Your task to perform on an android device: When is my next appointment? Image 0: 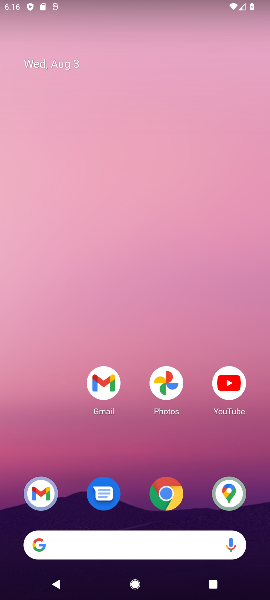
Step 0: drag from (134, 491) to (140, 42)
Your task to perform on an android device: When is my next appointment? Image 1: 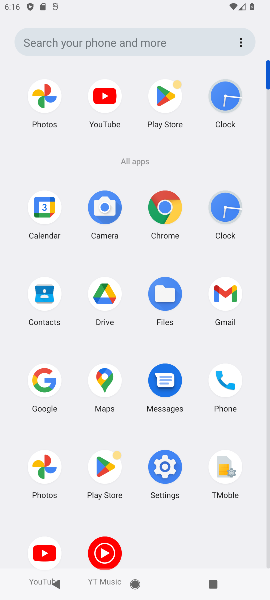
Step 1: click (43, 209)
Your task to perform on an android device: When is my next appointment? Image 2: 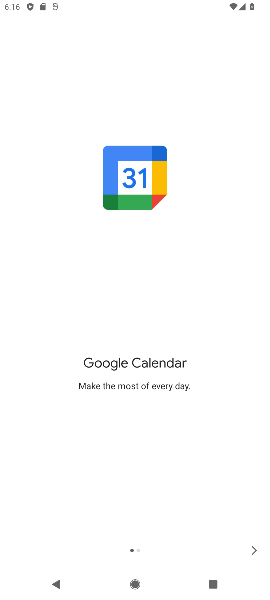
Step 2: click (249, 550)
Your task to perform on an android device: When is my next appointment? Image 3: 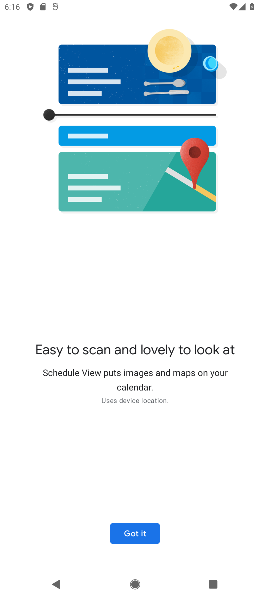
Step 3: click (141, 538)
Your task to perform on an android device: When is my next appointment? Image 4: 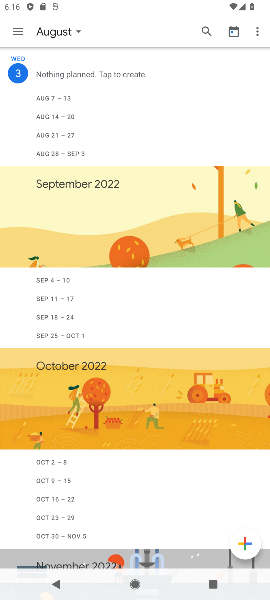
Step 4: click (69, 28)
Your task to perform on an android device: When is my next appointment? Image 5: 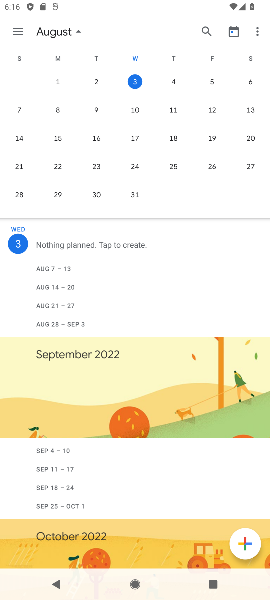
Step 5: click (173, 79)
Your task to perform on an android device: When is my next appointment? Image 6: 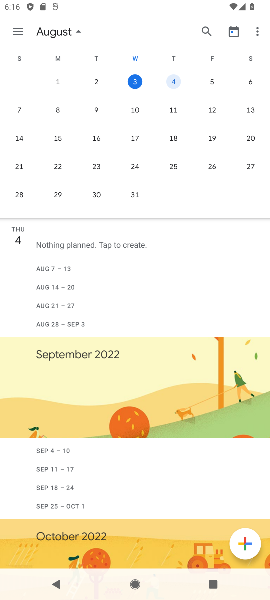
Step 6: click (175, 77)
Your task to perform on an android device: When is my next appointment? Image 7: 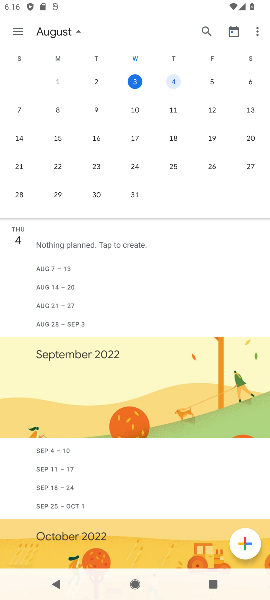
Step 7: click (170, 80)
Your task to perform on an android device: When is my next appointment? Image 8: 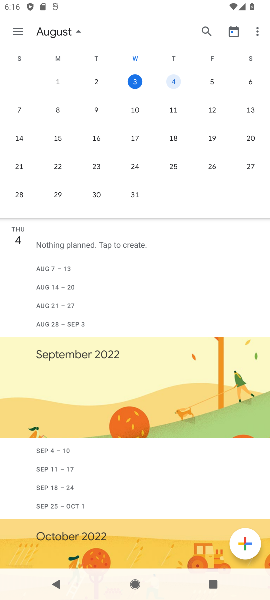
Step 8: click (170, 82)
Your task to perform on an android device: When is my next appointment? Image 9: 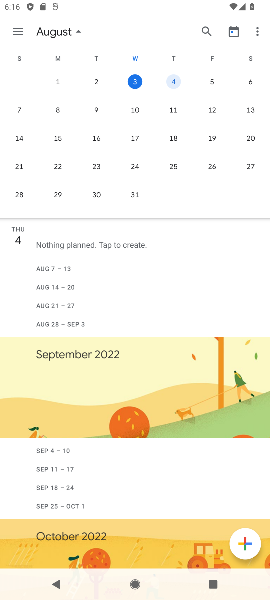
Step 9: click (170, 85)
Your task to perform on an android device: When is my next appointment? Image 10: 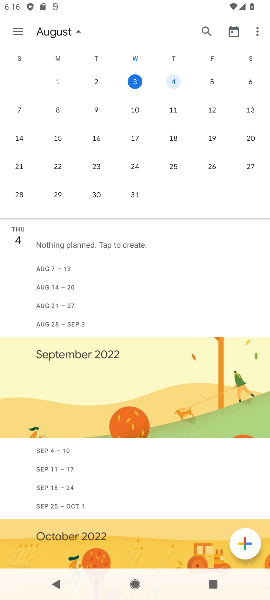
Step 10: click (170, 80)
Your task to perform on an android device: When is my next appointment? Image 11: 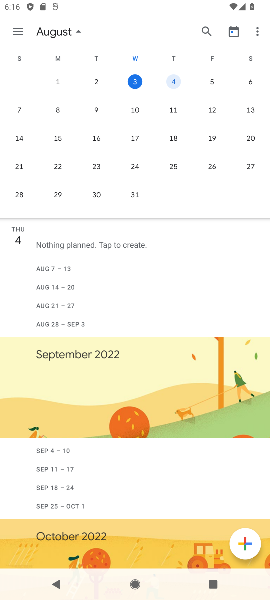
Step 11: click (166, 80)
Your task to perform on an android device: When is my next appointment? Image 12: 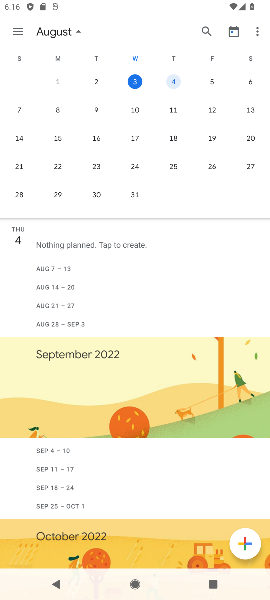
Step 12: click (178, 82)
Your task to perform on an android device: When is my next appointment? Image 13: 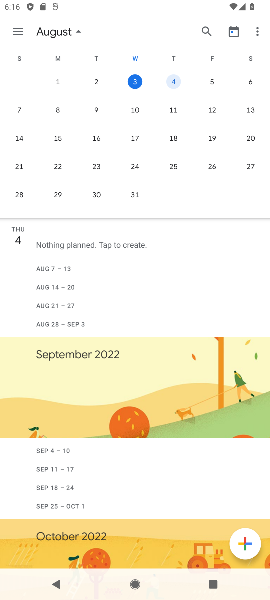
Step 13: click (178, 82)
Your task to perform on an android device: When is my next appointment? Image 14: 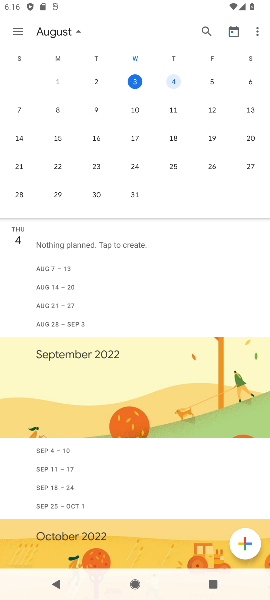
Step 14: click (178, 82)
Your task to perform on an android device: When is my next appointment? Image 15: 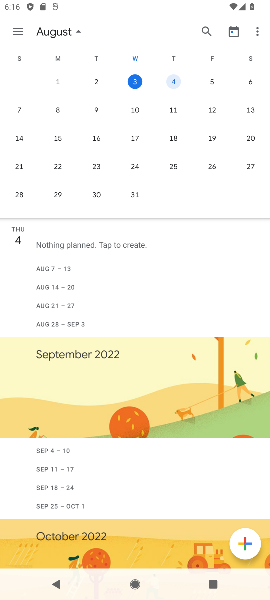
Step 15: click (178, 82)
Your task to perform on an android device: When is my next appointment? Image 16: 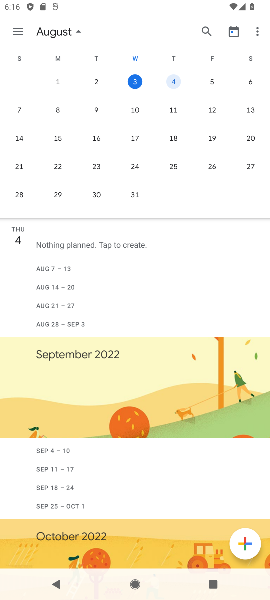
Step 16: click (170, 76)
Your task to perform on an android device: When is my next appointment? Image 17: 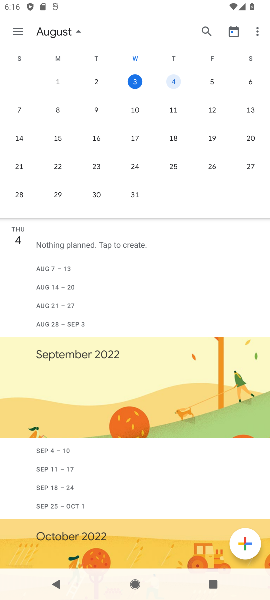
Step 17: click (170, 76)
Your task to perform on an android device: When is my next appointment? Image 18: 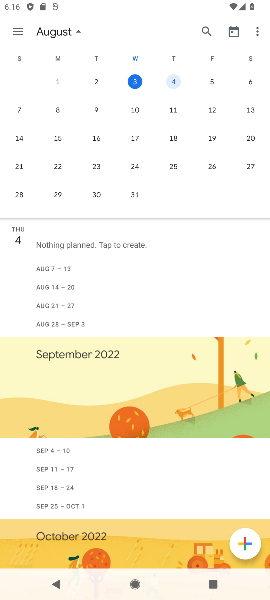
Step 18: click (173, 82)
Your task to perform on an android device: When is my next appointment? Image 19: 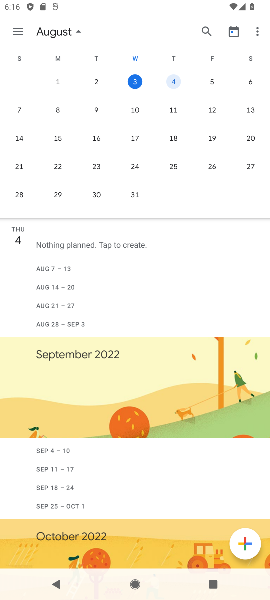
Step 19: task complete